Your task to perform on an android device: Open Google Chrome and open the bookmarks view Image 0: 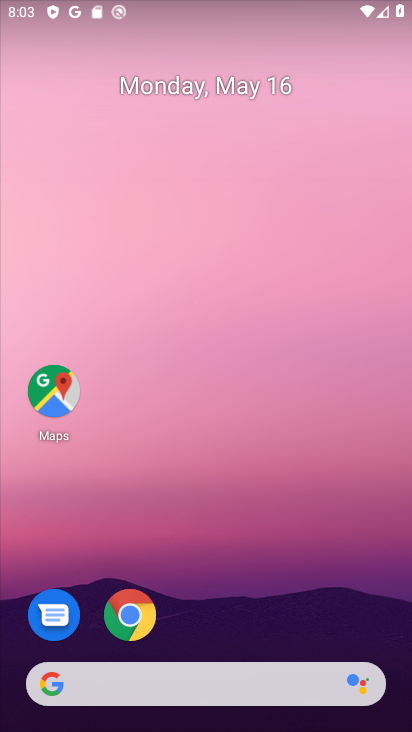
Step 0: click (126, 616)
Your task to perform on an android device: Open Google Chrome and open the bookmarks view Image 1: 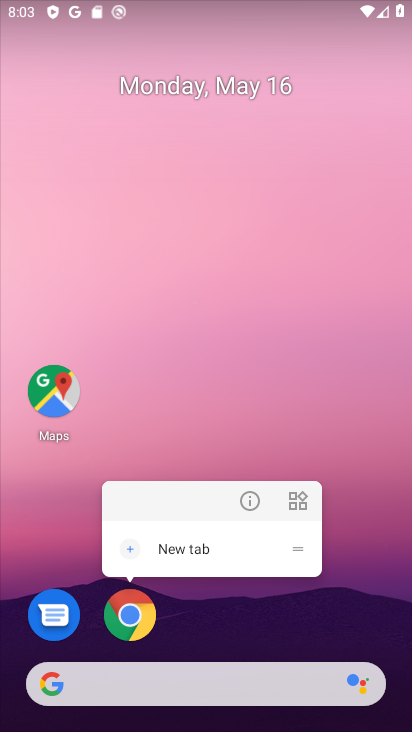
Step 1: click (205, 271)
Your task to perform on an android device: Open Google Chrome and open the bookmarks view Image 2: 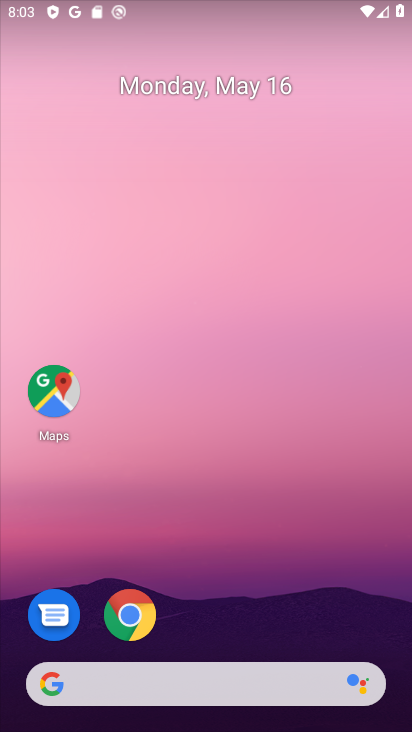
Step 2: click (134, 606)
Your task to perform on an android device: Open Google Chrome and open the bookmarks view Image 3: 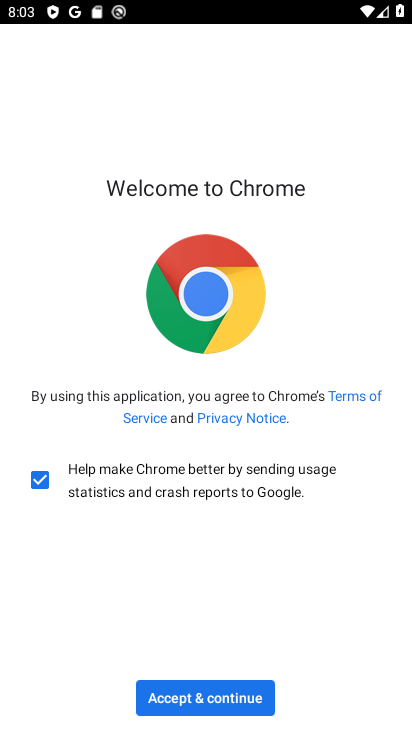
Step 3: click (191, 699)
Your task to perform on an android device: Open Google Chrome and open the bookmarks view Image 4: 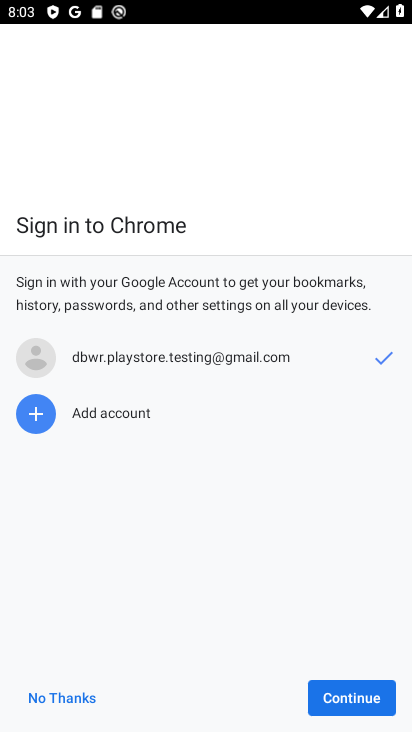
Step 4: click (66, 705)
Your task to perform on an android device: Open Google Chrome and open the bookmarks view Image 5: 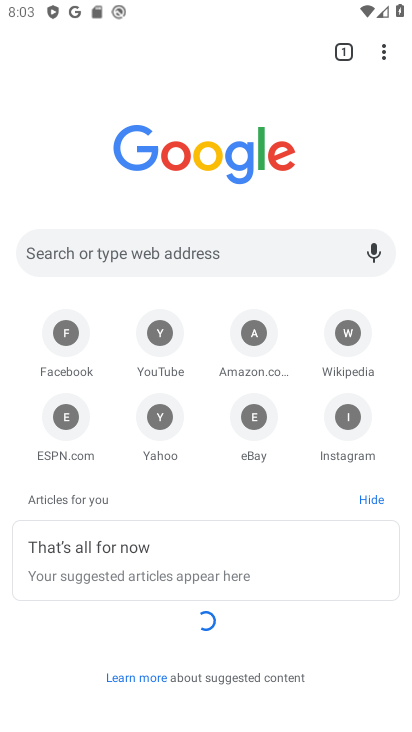
Step 5: click (380, 50)
Your task to perform on an android device: Open Google Chrome and open the bookmarks view Image 6: 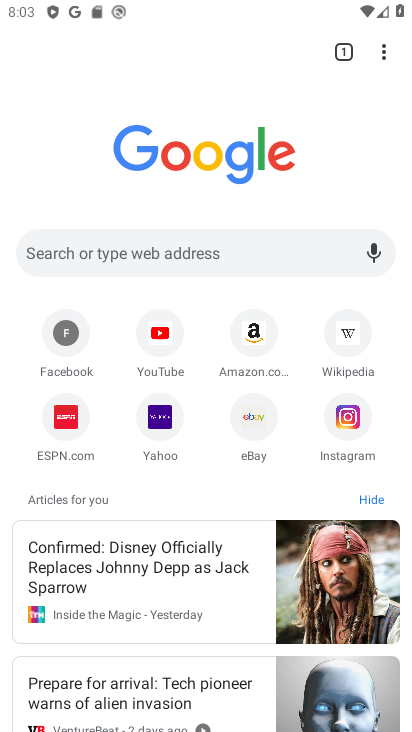
Step 6: click (385, 50)
Your task to perform on an android device: Open Google Chrome and open the bookmarks view Image 7: 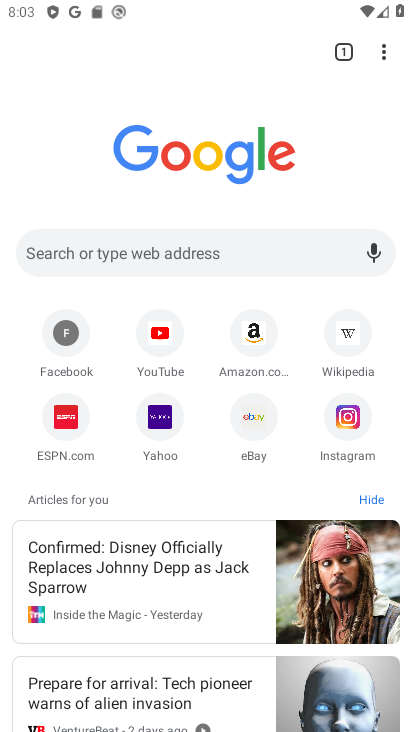
Step 7: click (385, 47)
Your task to perform on an android device: Open Google Chrome and open the bookmarks view Image 8: 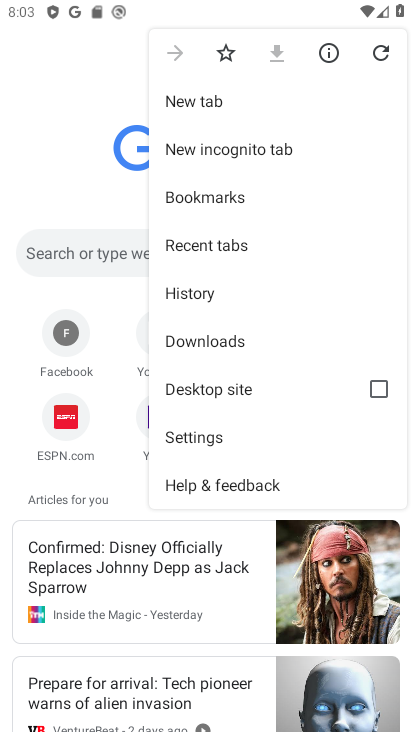
Step 8: click (216, 190)
Your task to perform on an android device: Open Google Chrome and open the bookmarks view Image 9: 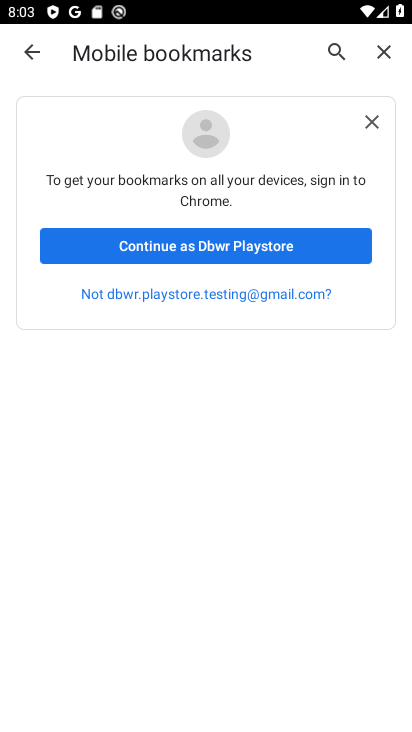
Step 9: click (375, 122)
Your task to perform on an android device: Open Google Chrome and open the bookmarks view Image 10: 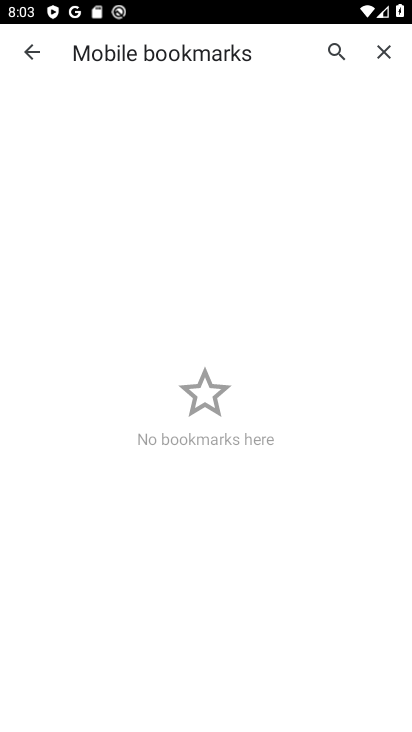
Step 10: task complete